Your task to perform on an android device: change the clock display to show seconds Image 0: 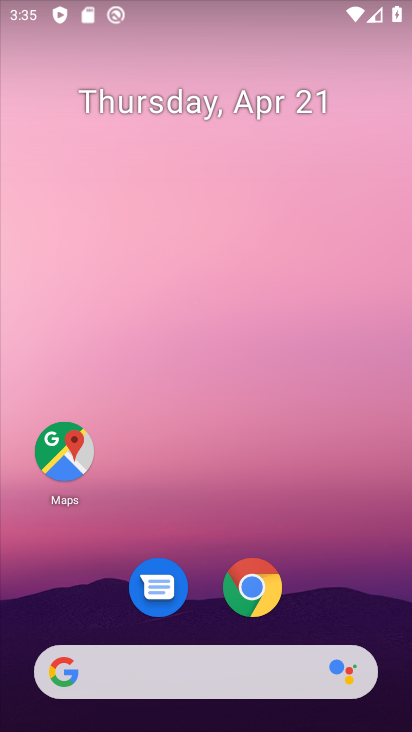
Step 0: drag from (349, 610) to (364, 26)
Your task to perform on an android device: change the clock display to show seconds Image 1: 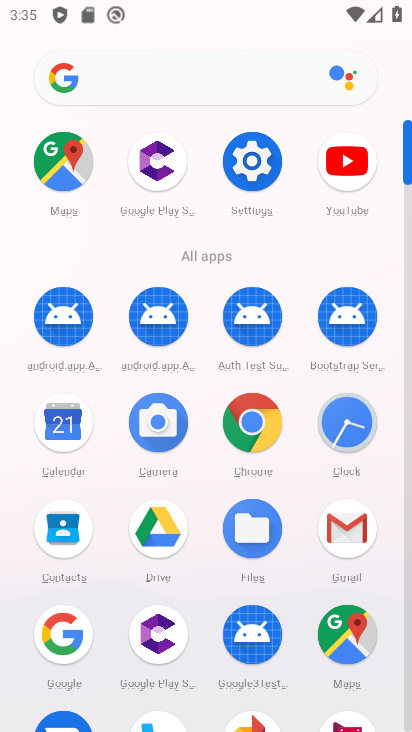
Step 1: click (350, 433)
Your task to perform on an android device: change the clock display to show seconds Image 2: 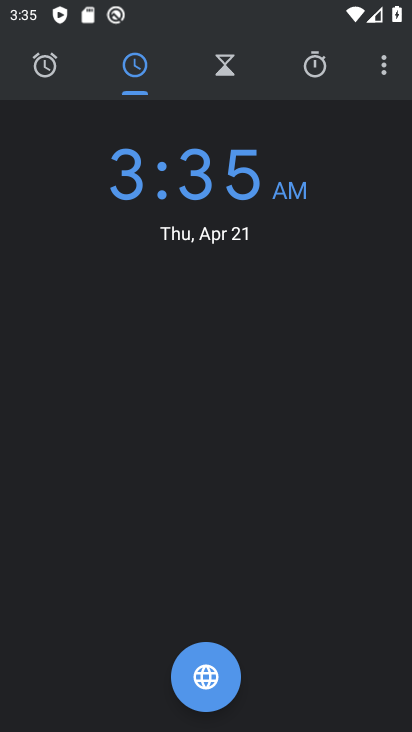
Step 2: click (380, 66)
Your task to perform on an android device: change the clock display to show seconds Image 3: 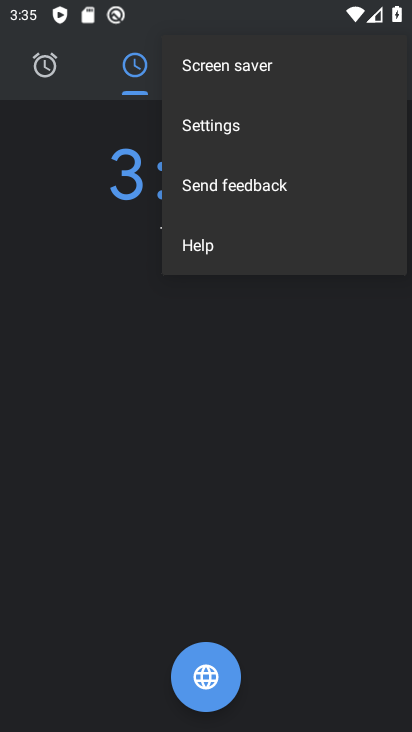
Step 3: click (220, 133)
Your task to perform on an android device: change the clock display to show seconds Image 4: 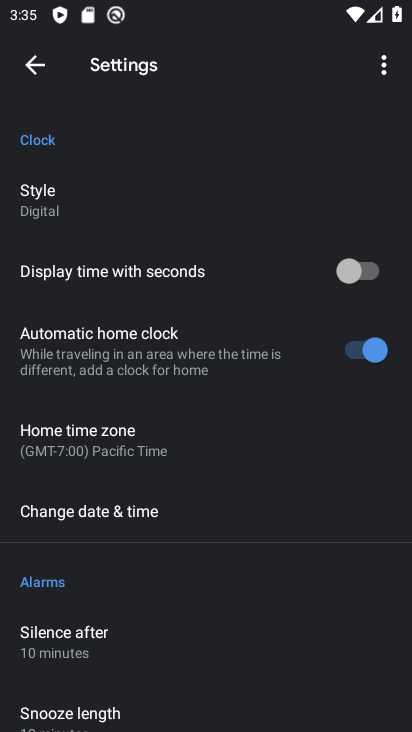
Step 4: click (355, 278)
Your task to perform on an android device: change the clock display to show seconds Image 5: 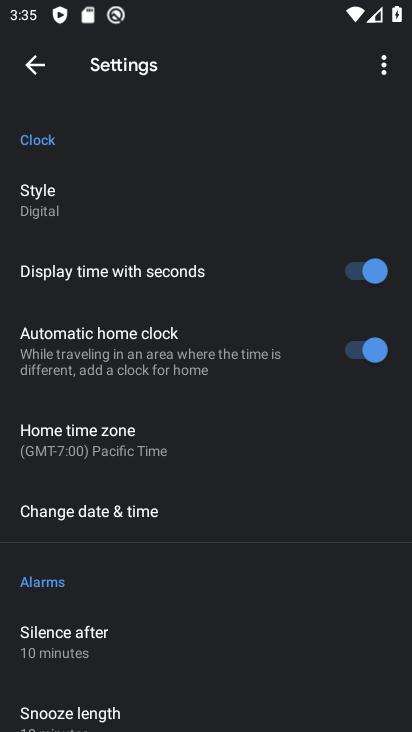
Step 5: task complete